Your task to perform on an android device: Open sound settings Image 0: 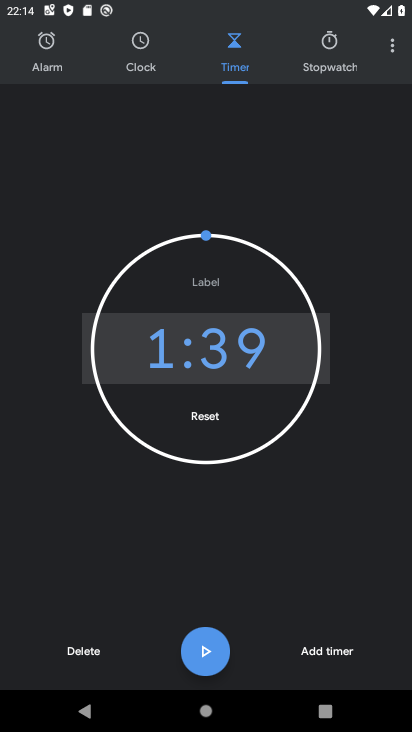
Step 0: press home button
Your task to perform on an android device: Open sound settings Image 1: 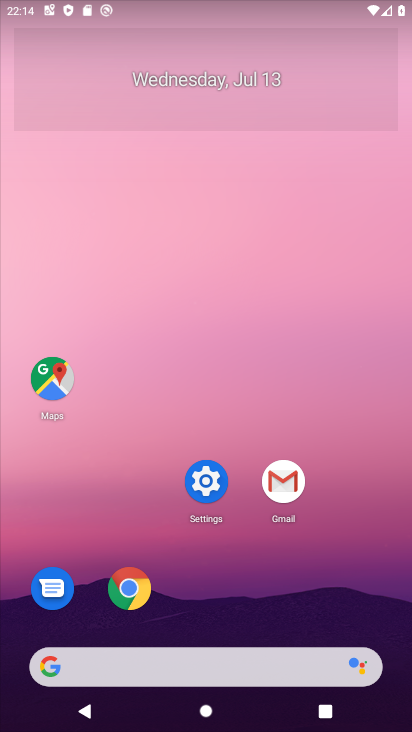
Step 1: click (204, 491)
Your task to perform on an android device: Open sound settings Image 2: 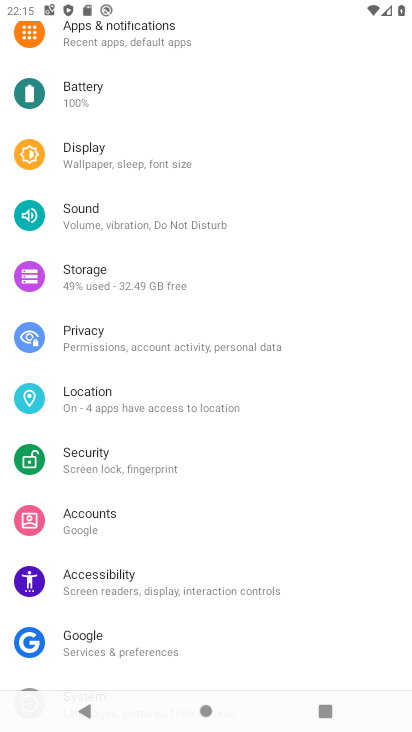
Step 2: click (77, 206)
Your task to perform on an android device: Open sound settings Image 3: 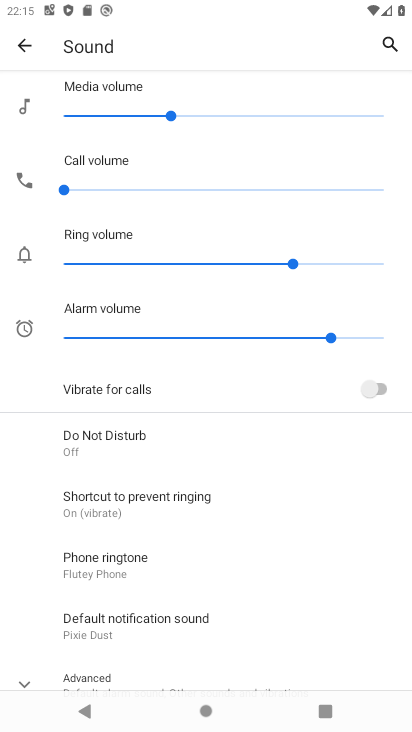
Step 3: task complete